Your task to perform on an android device: Open the Play Movies app and select the watchlist tab. Image 0: 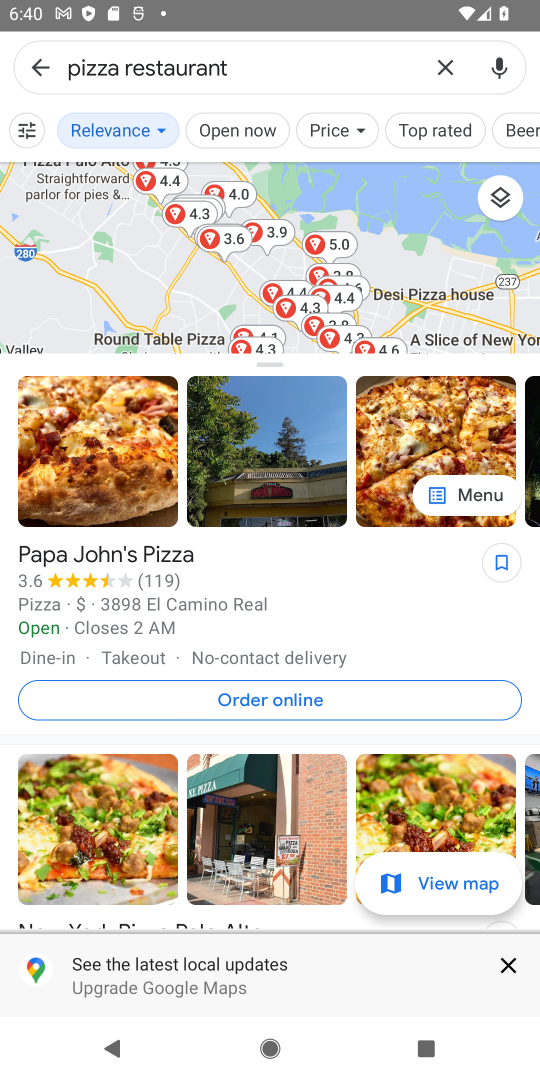
Step 0: press home button
Your task to perform on an android device: Open the Play Movies app and select the watchlist tab. Image 1: 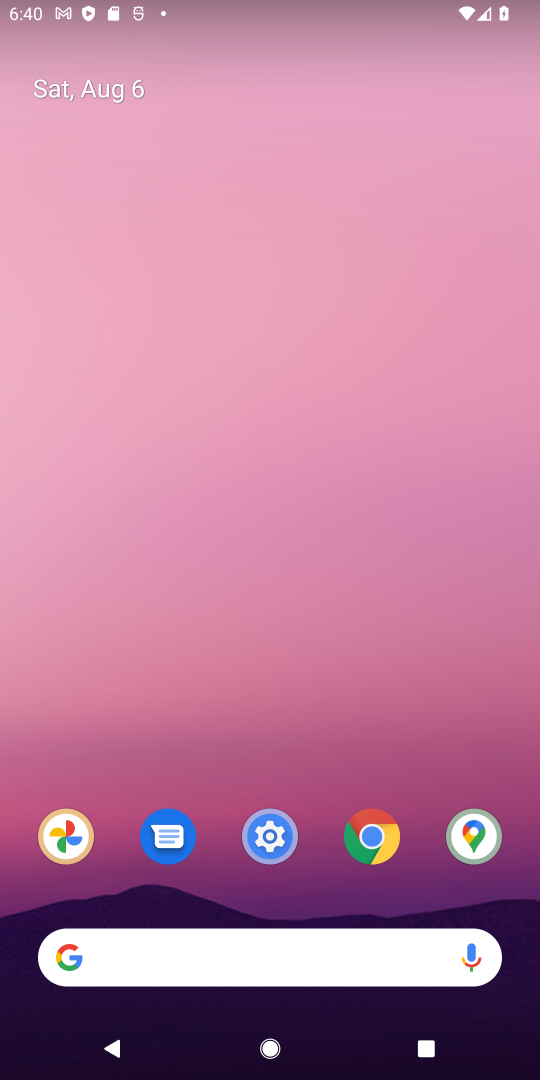
Step 1: task complete